Your task to perform on an android device: toggle notifications settings in the gmail app Image 0: 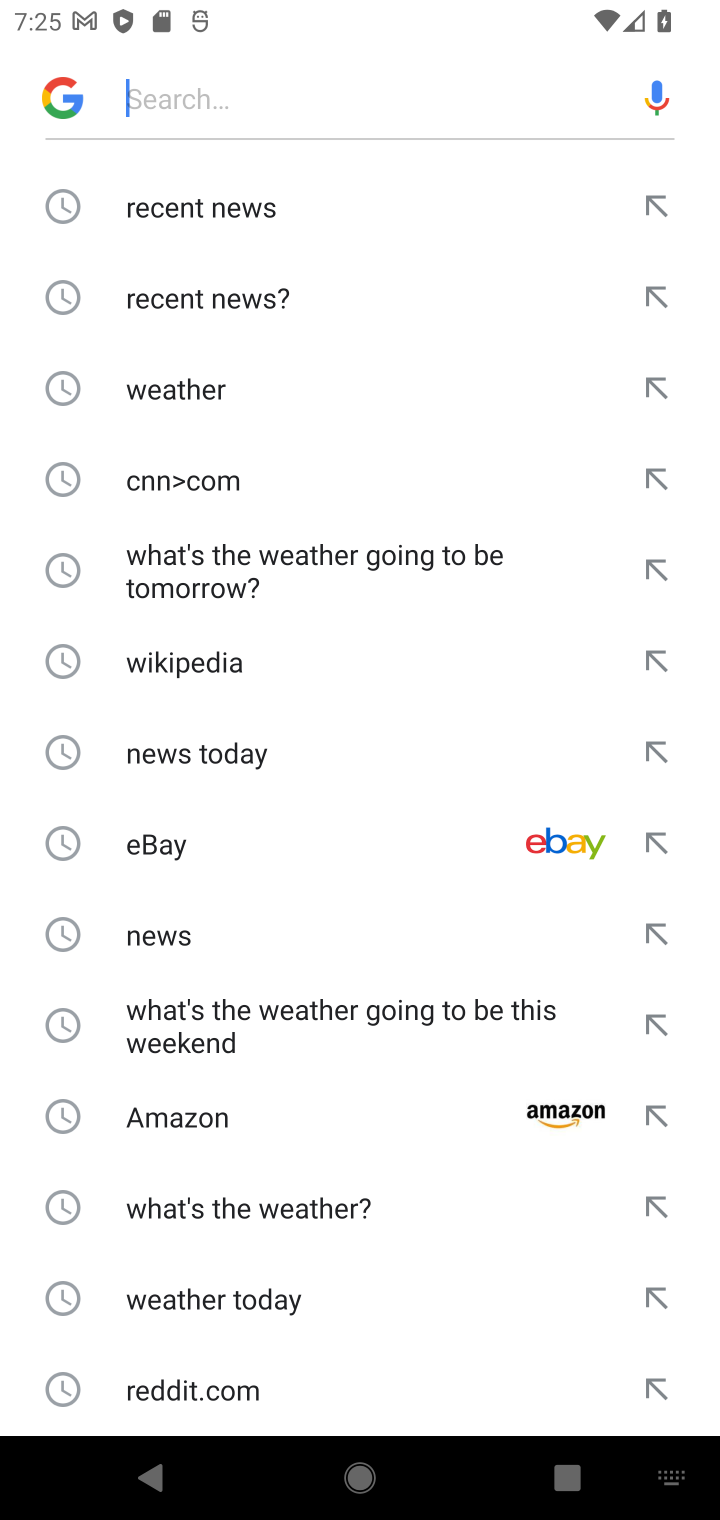
Step 0: task complete